Your task to perform on an android device: toggle notification dots Image 0: 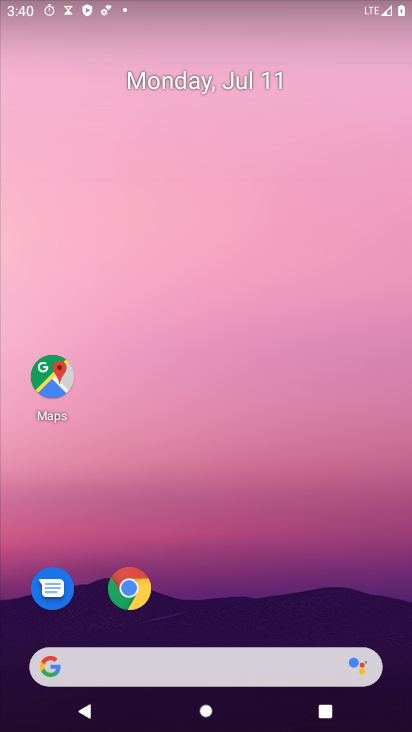
Step 0: drag from (273, 588) to (262, 46)
Your task to perform on an android device: toggle notification dots Image 1: 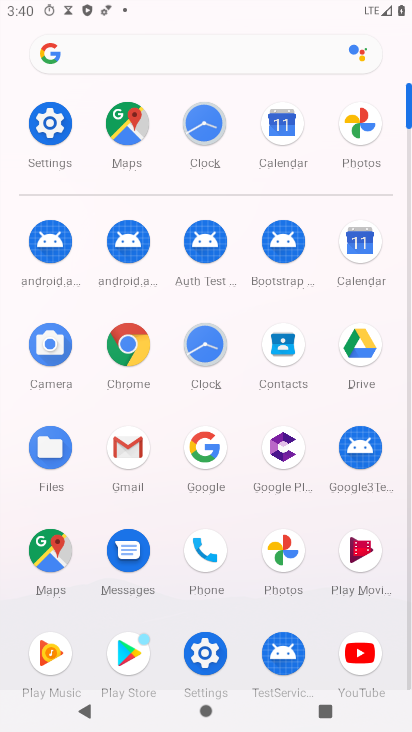
Step 1: click (40, 126)
Your task to perform on an android device: toggle notification dots Image 2: 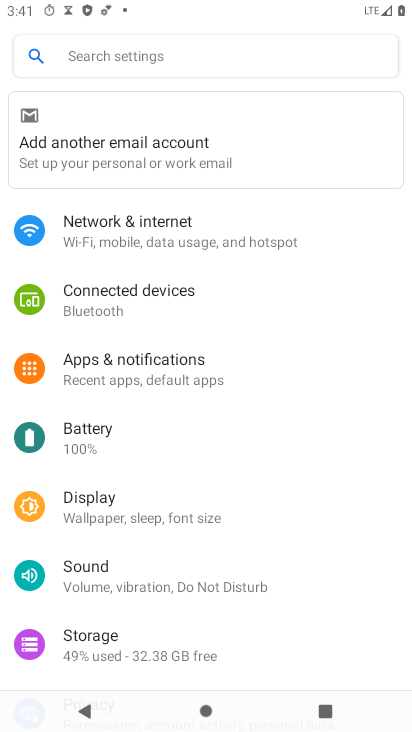
Step 2: click (100, 361)
Your task to perform on an android device: toggle notification dots Image 3: 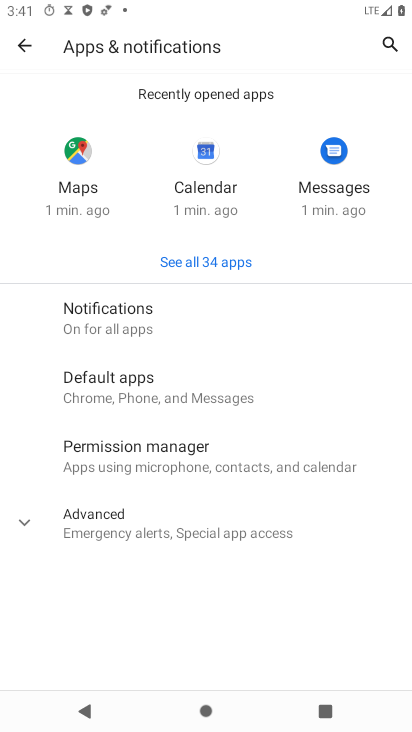
Step 3: click (133, 333)
Your task to perform on an android device: toggle notification dots Image 4: 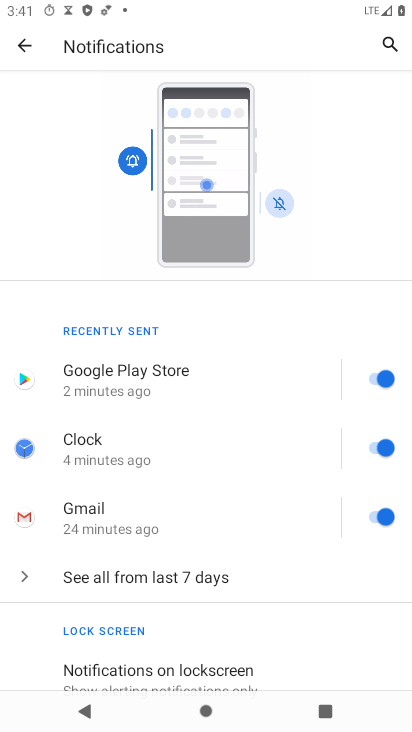
Step 4: drag from (117, 656) to (213, 260)
Your task to perform on an android device: toggle notification dots Image 5: 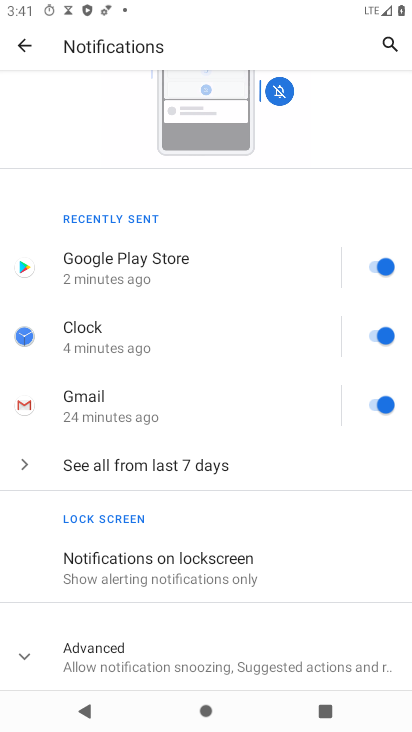
Step 5: click (208, 647)
Your task to perform on an android device: toggle notification dots Image 6: 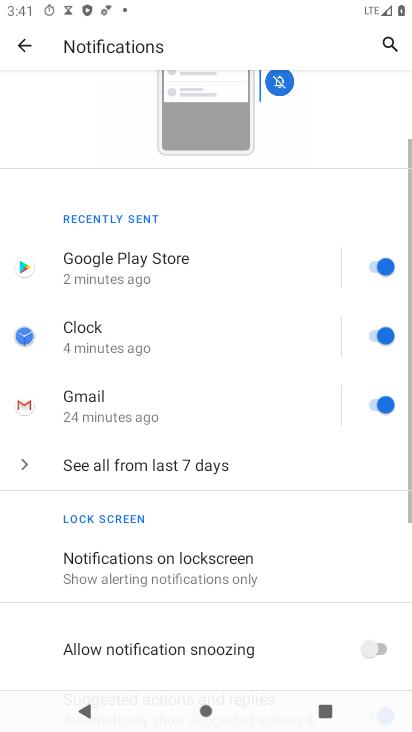
Step 6: drag from (208, 647) to (219, 253)
Your task to perform on an android device: toggle notification dots Image 7: 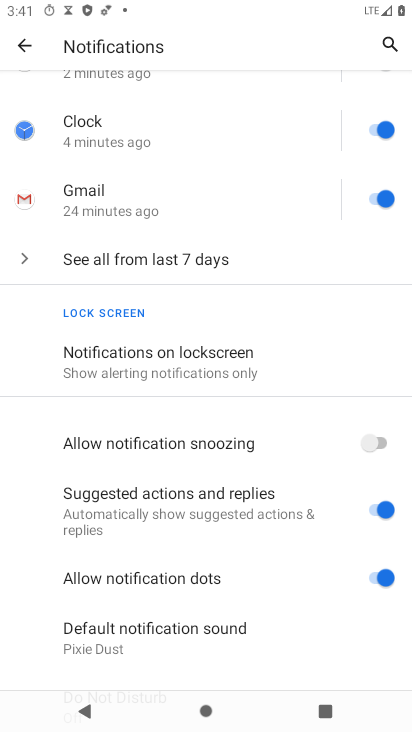
Step 7: click (378, 582)
Your task to perform on an android device: toggle notification dots Image 8: 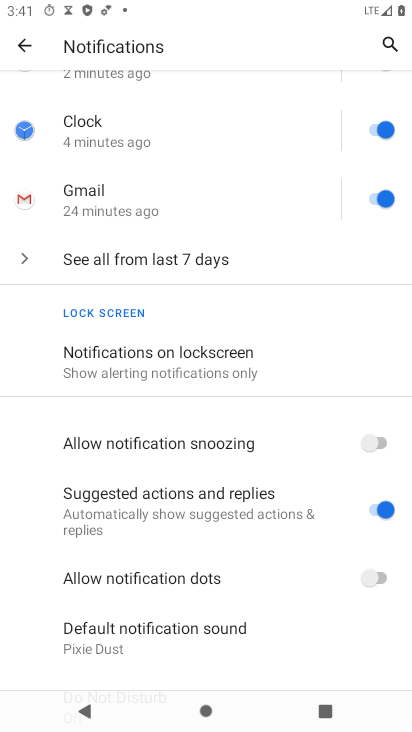
Step 8: task complete